Your task to perform on an android device: change the clock display to analog Image 0: 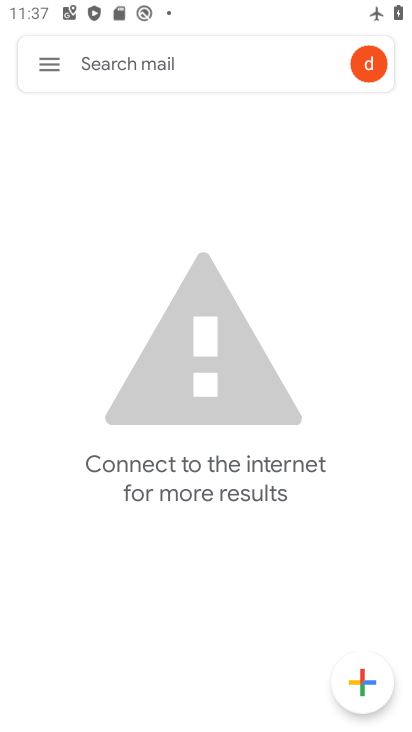
Step 0: press home button
Your task to perform on an android device: change the clock display to analog Image 1: 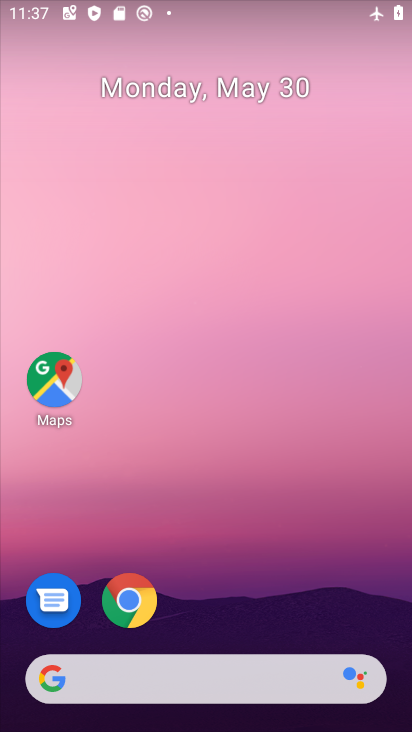
Step 1: drag from (199, 723) to (194, 182)
Your task to perform on an android device: change the clock display to analog Image 2: 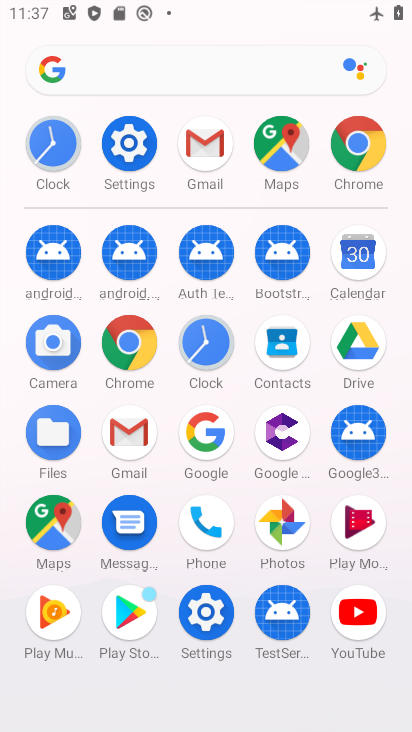
Step 2: click (204, 350)
Your task to perform on an android device: change the clock display to analog Image 3: 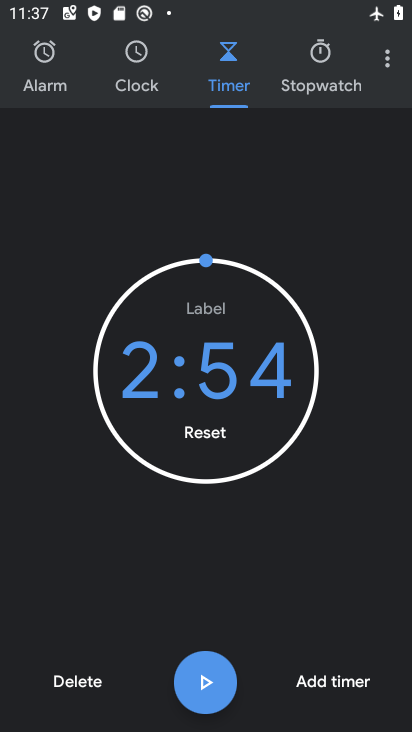
Step 3: click (387, 62)
Your task to perform on an android device: change the clock display to analog Image 4: 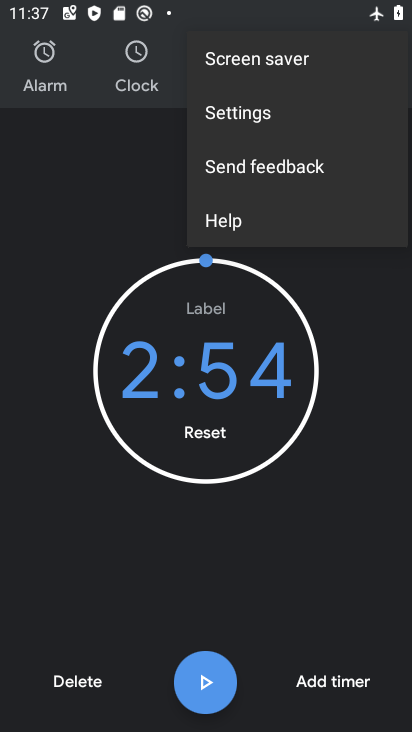
Step 4: click (259, 112)
Your task to perform on an android device: change the clock display to analog Image 5: 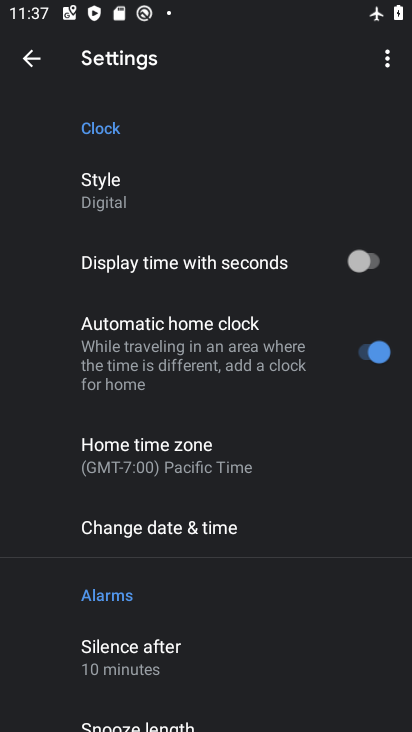
Step 5: click (105, 189)
Your task to perform on an android device: change the clock display to analog Image 6: 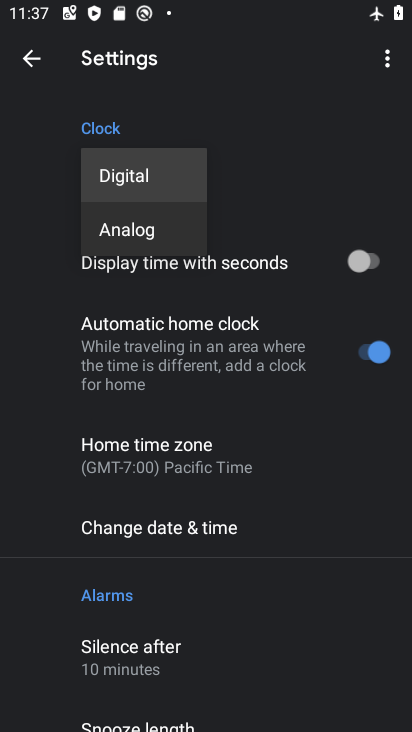
Step 6: click (118, 224)
Your task to perform on an android device: change the clock display to analog Image 7: 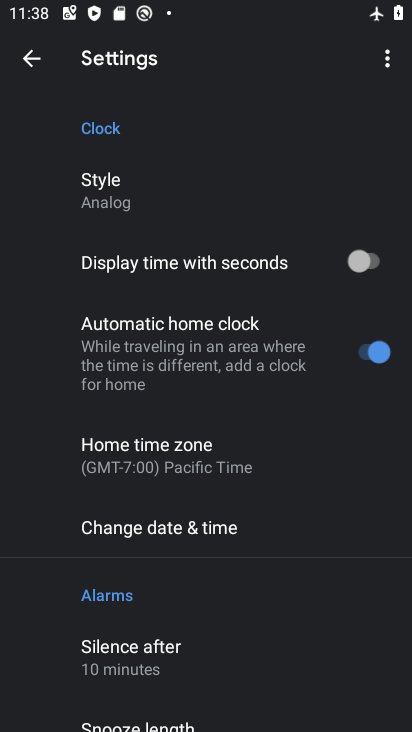
Step 7: task complete